Your task to perform on an android device: change alarm snooze length Image 0: 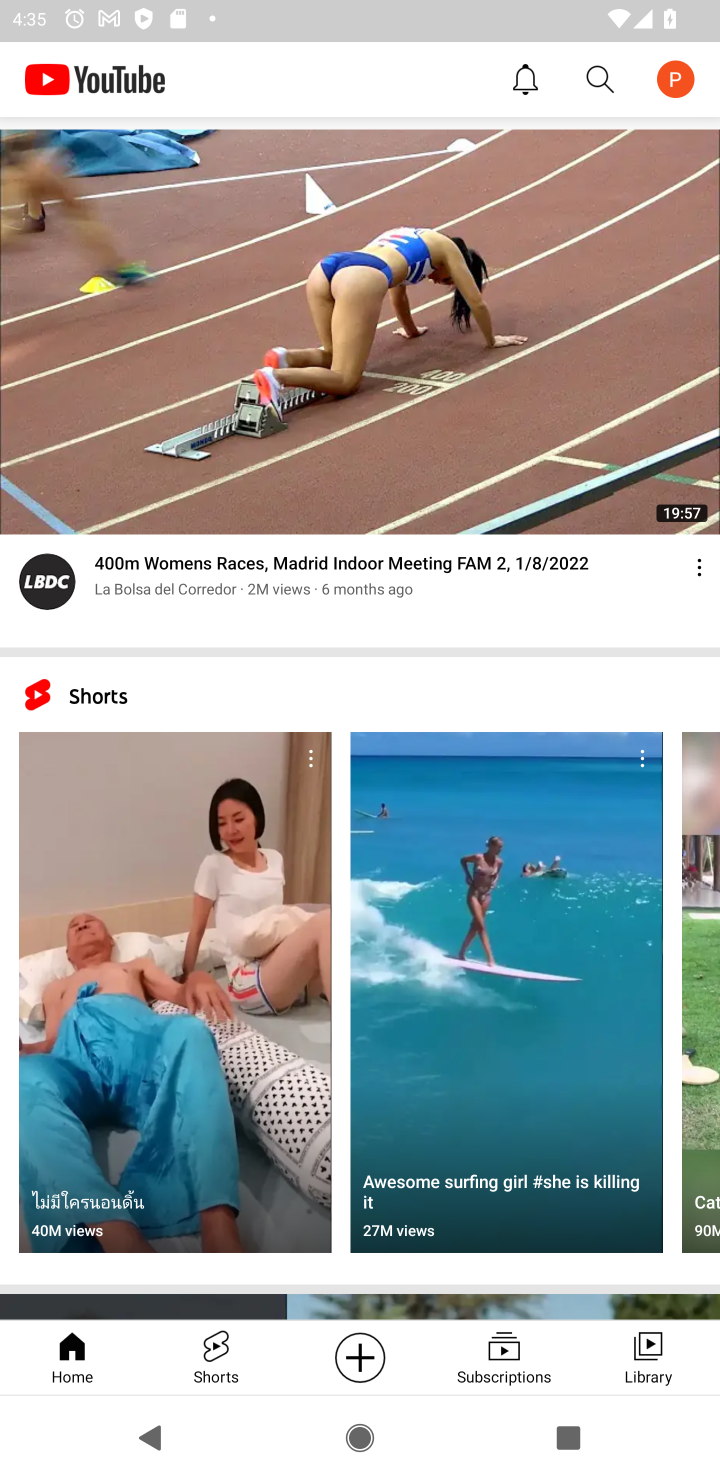
Step 0: press home button
Your task to perform on an android device: change alarm snooze length Image 1: 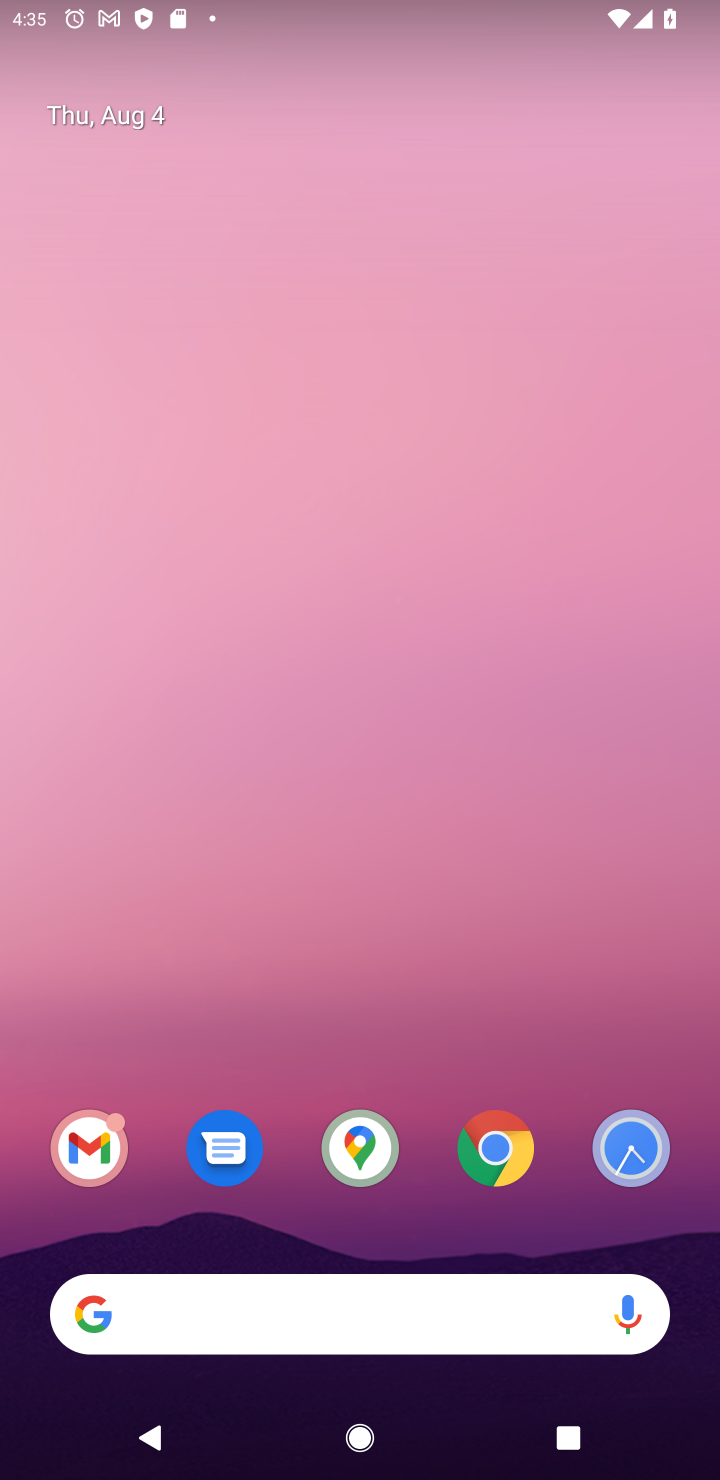
Step 1: click (633, 1134)
Your task to perform on an android device: change alarm snooze length Image 2: 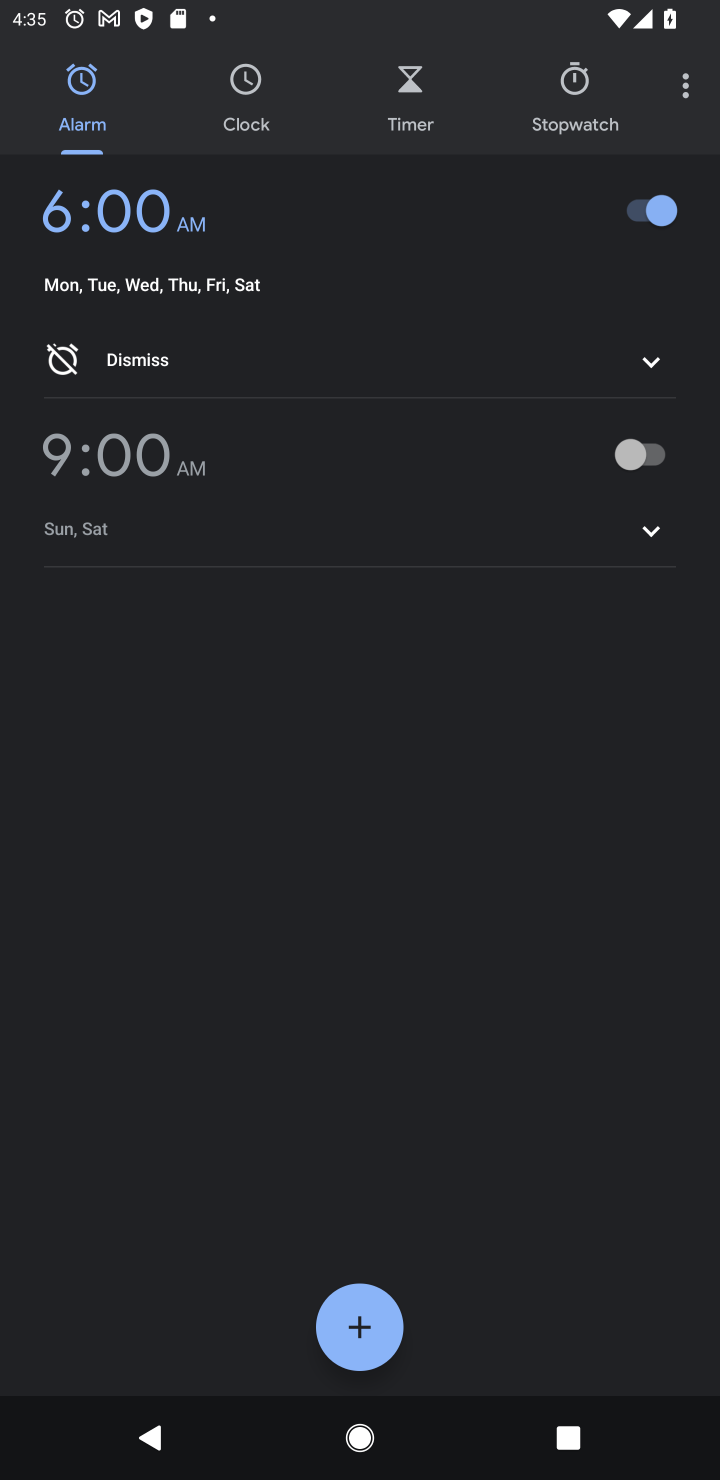
Step 2: click (683, 99)
Your task to perform on an android device: change alarm snooze length Image 3: 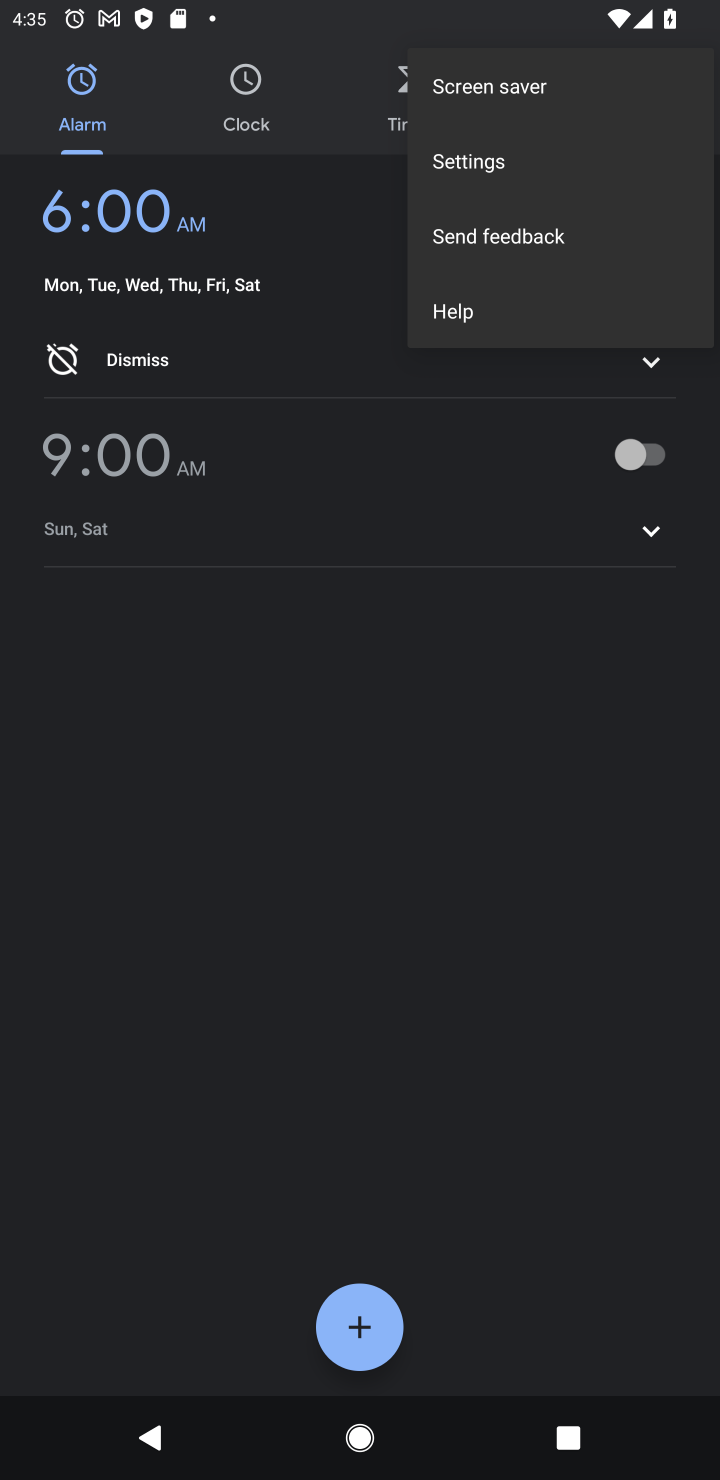
Step 3: click (449, 164)
Your task to perform on an android device: change alarm snooze length Image 4: 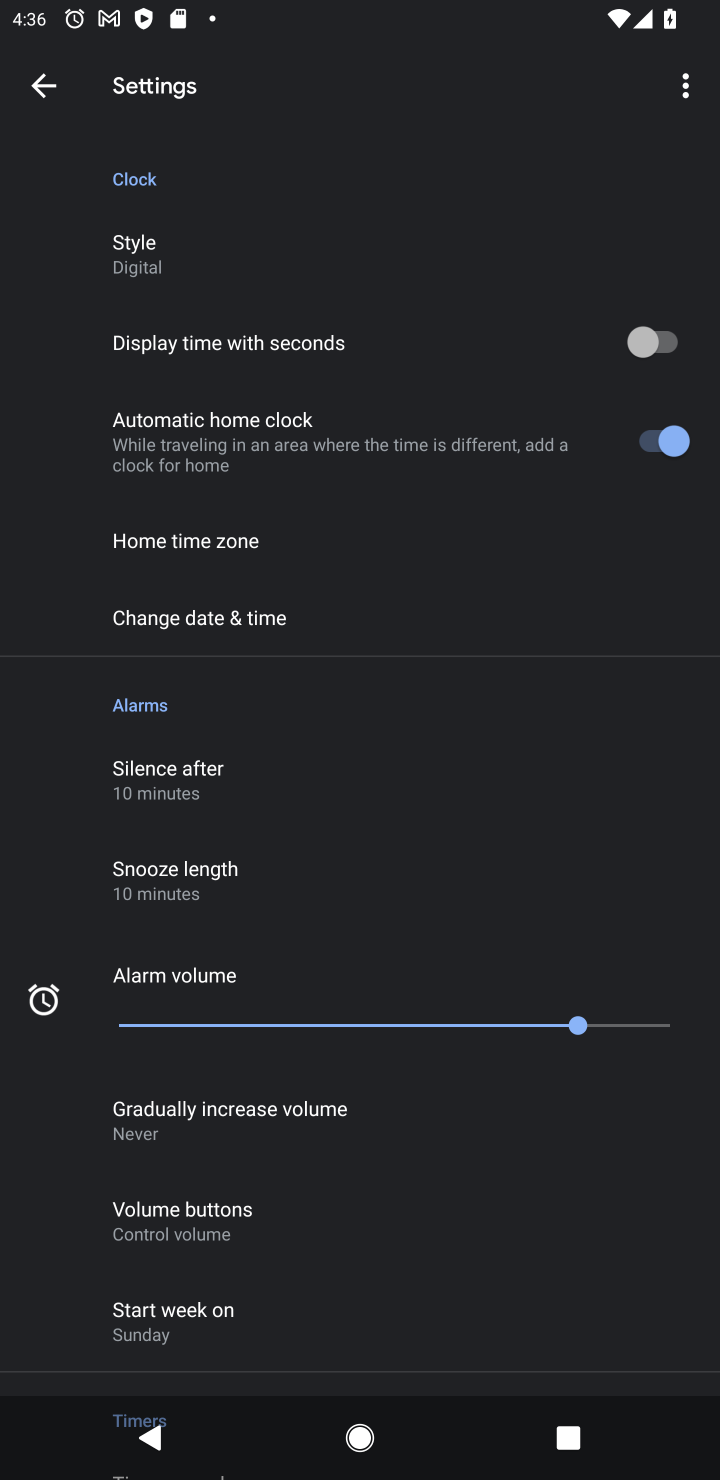
Step 4: click (200, 886)
Your task to perform on an android device: change alarm snooze length Image 5: 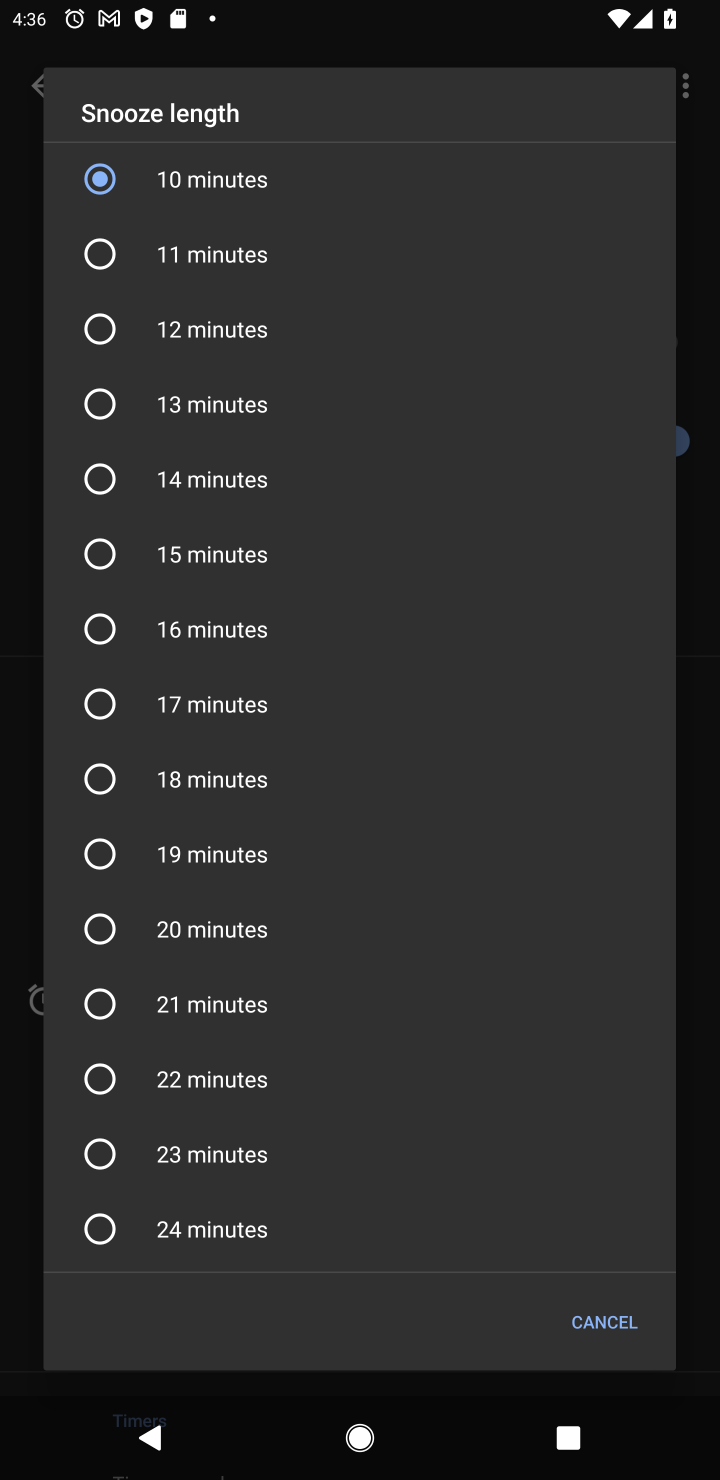
Step 5: click (108, 543)
Your task to perform on an android device: change alarm snooze length Image 6: 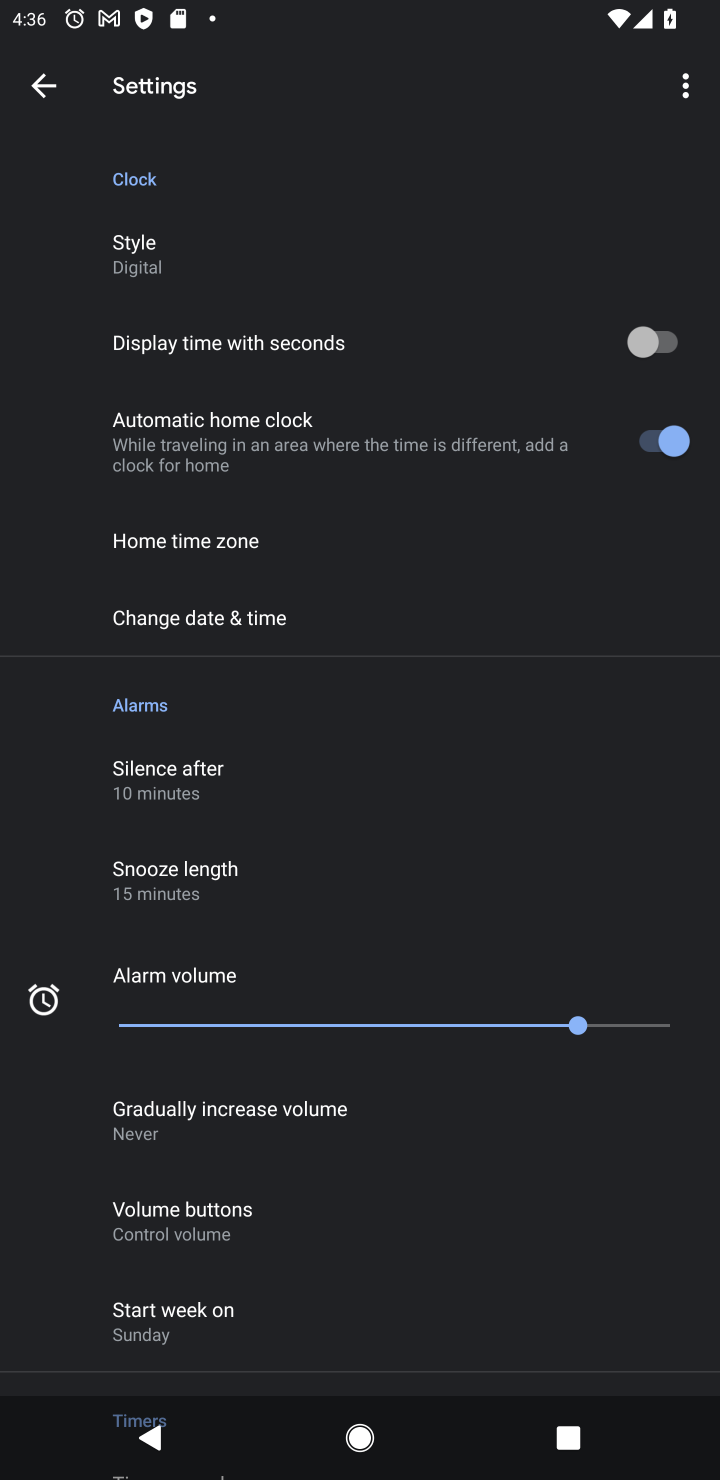
Step 6: task complete